Your task to perform on an android device: Open privacy settings Image 0: 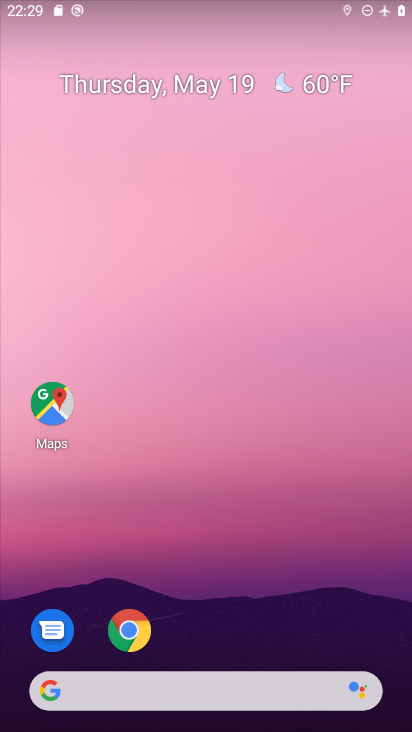
Step 0: drag from (255, 578) to (191, 128)
Your task to perform on an android device: Open privacy settings Image 1: 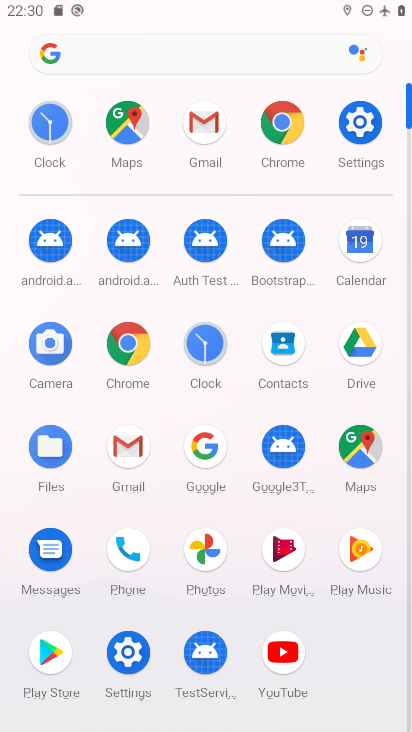
Step 1: click (354, 124)
Your task to perform on an android device: Open privacy settings Image 2: 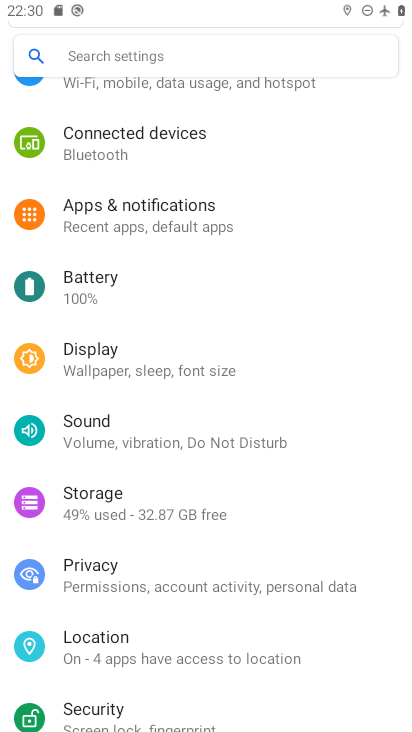
Step 2: click (88, 568)
Your task to perform on an android device: Open privacy settings Image 3: 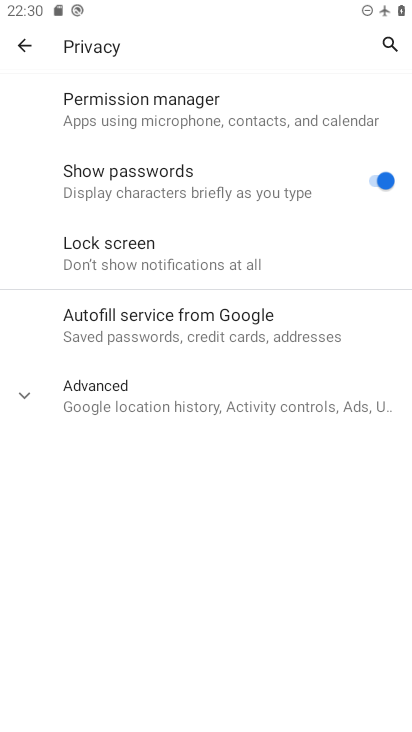
Step 3: task complete